Your task to perform on an android device: add a contact Image 0: 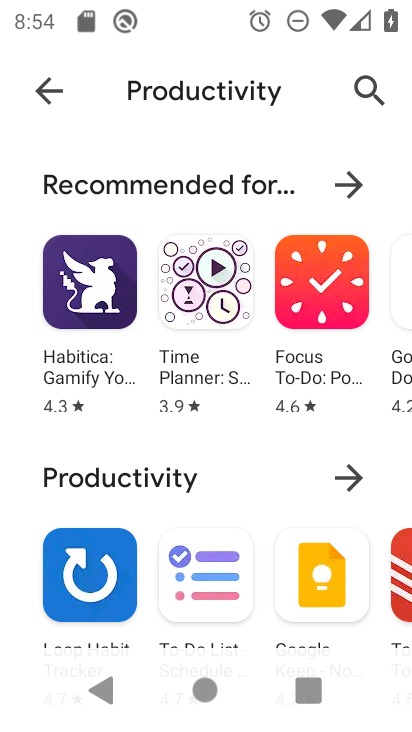
Step 0: press home button
Your task to perform on an android device: add a contact Image 1: 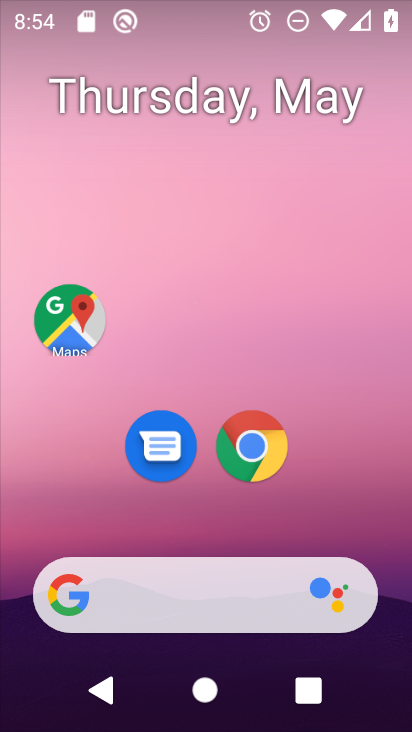
Step 1: drag from (327, 506) to (349, 140)
Your task to perform on an android device: add a contact Image 2: 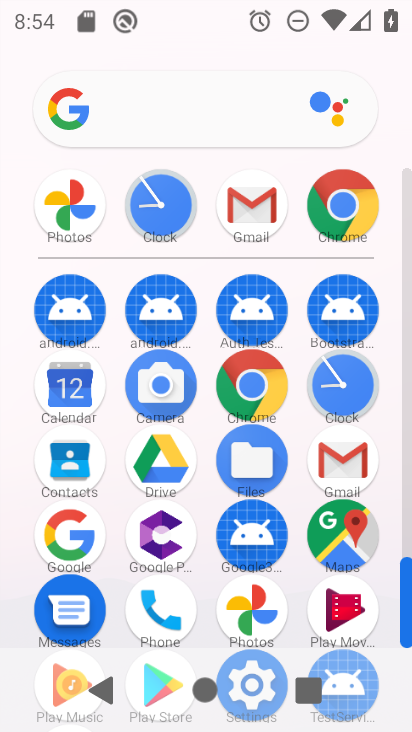
Step 2: click (75, 452)
Your task to perform on an android device: add a contact Image 3: 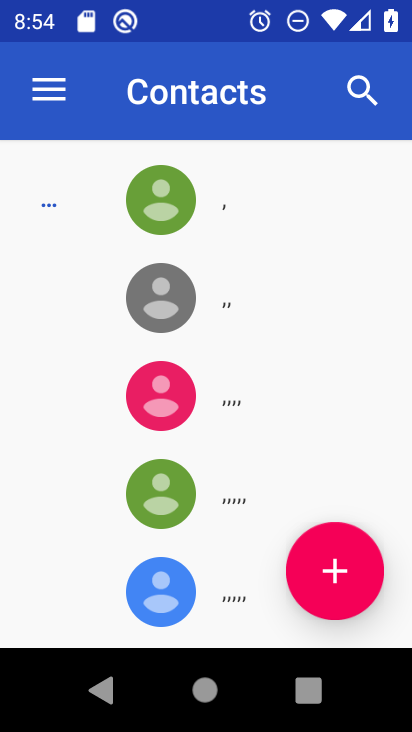
Step 3: click (355, 583)
Your task to perform on an android device: add a contact Image 4: 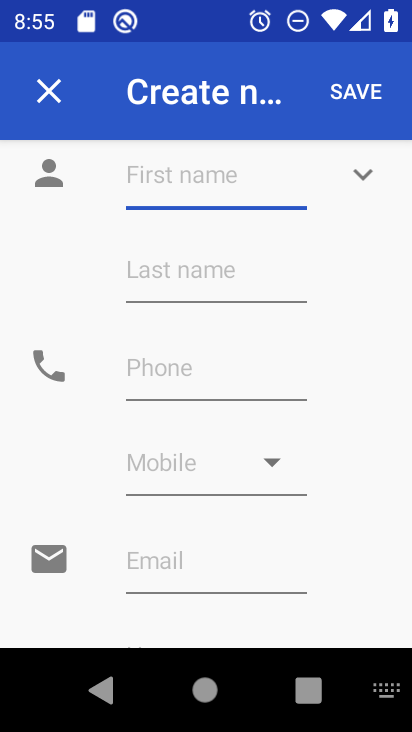
Step 4: type "satish"
Your task to perform on an android device: add a contact Image 5: 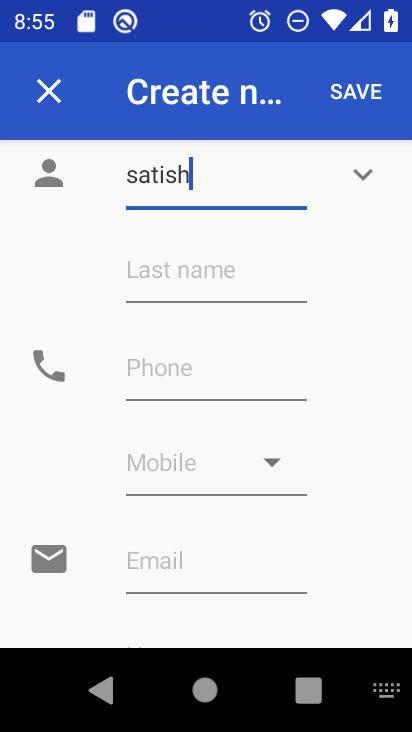
Step 5: click (198, 366)
Your task to perform on an android device: add a contact Image 6: 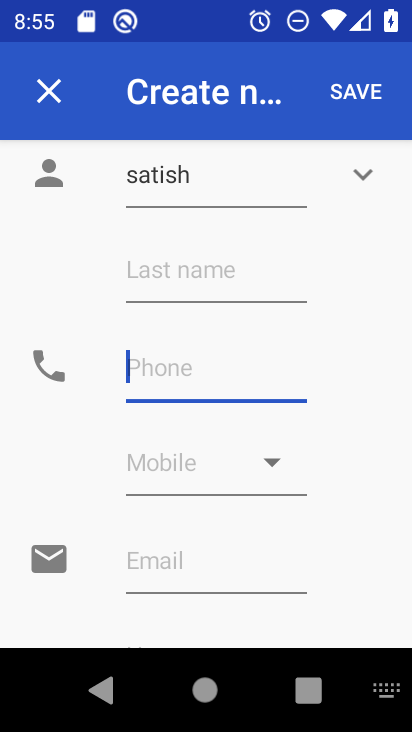
Step 6: type "9737482748"
Your task to perform on an android device: add a contact Image 7: 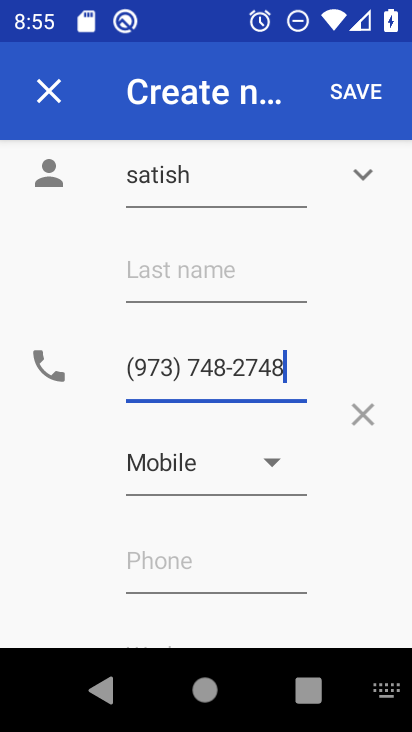
Step 7: click (375, 96)
Your task to perform on an android device: add a contact Image 8: 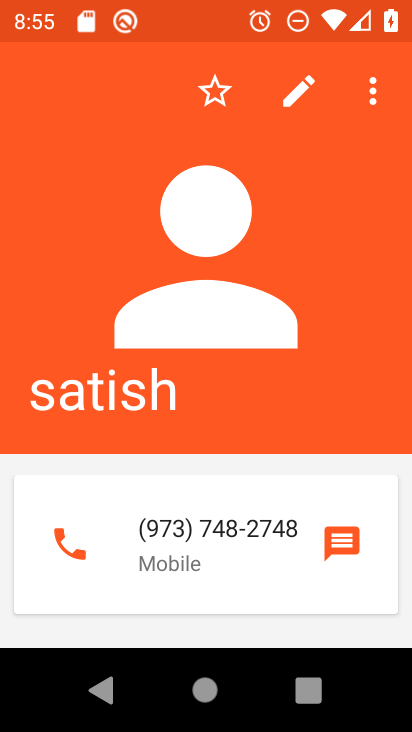
Step 8: task complete